Your task to perform on an android device: Open Android settings Image 0: 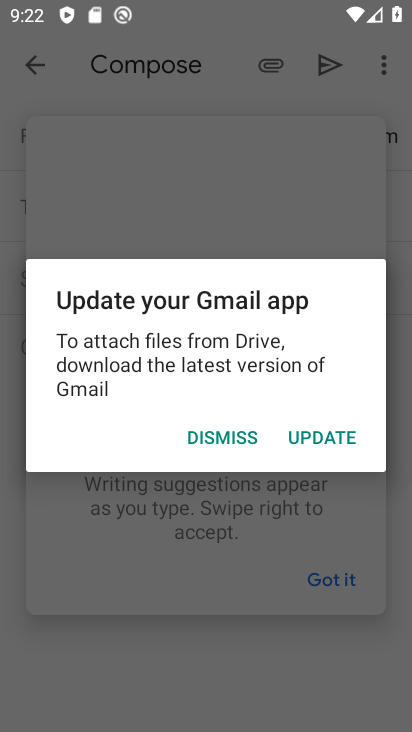
Step 0: press home button
Your task to perform on an android device: Open Android settings Image 1: 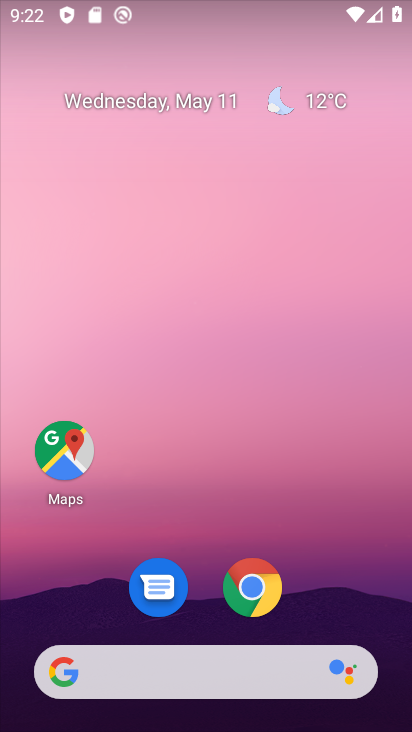
Step 1: drag from (334, 490) to (341, 97)
Your task to perform on an android device: Open Android settings Image 2: 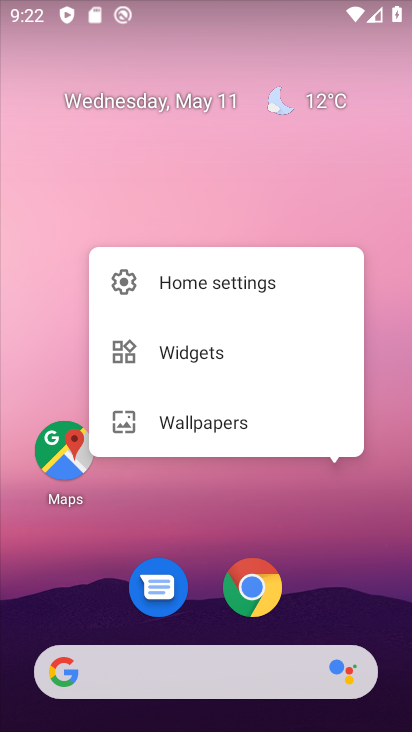
Step 2: drag from (362, 590) to (324, 64)
Your task to perform on an android device: Open Android settings Image 3: 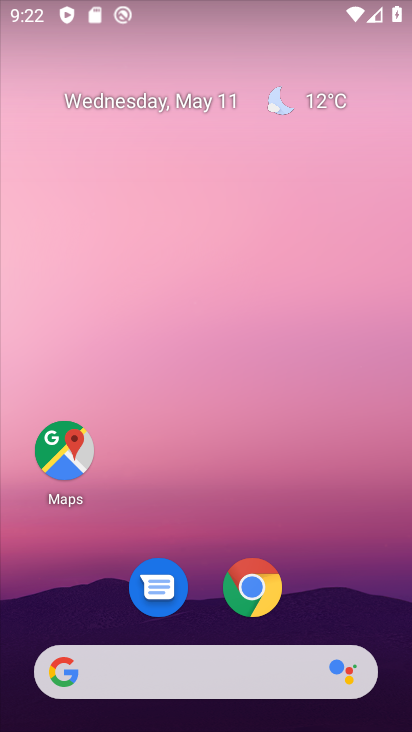
Step 3: drag from (326, 602) to (358, 1)
Your task to perform on an android device: Open Android settings Image 4: 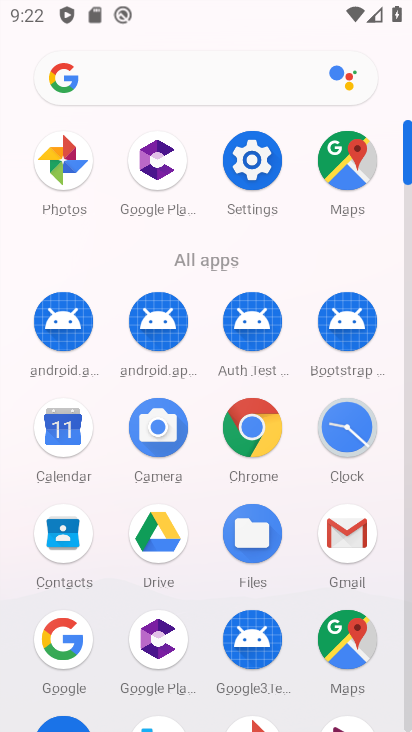
Step 4: click (257, 169)
Your task to perform on an android device: Open Android settings Image 5: 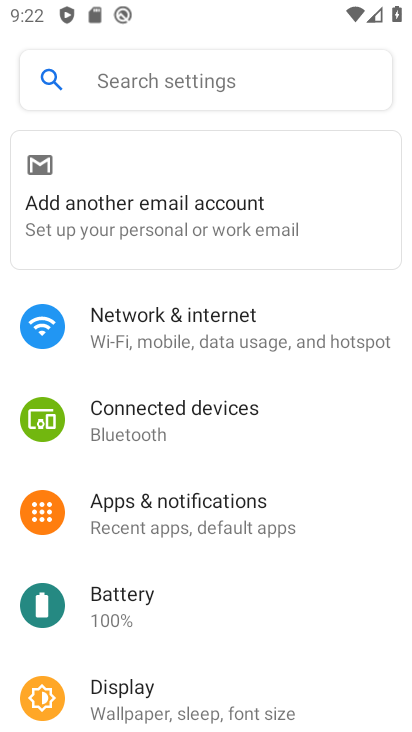
Step 5: task complete